Your task to perform on an android device: Open Google Chrome Image 0: 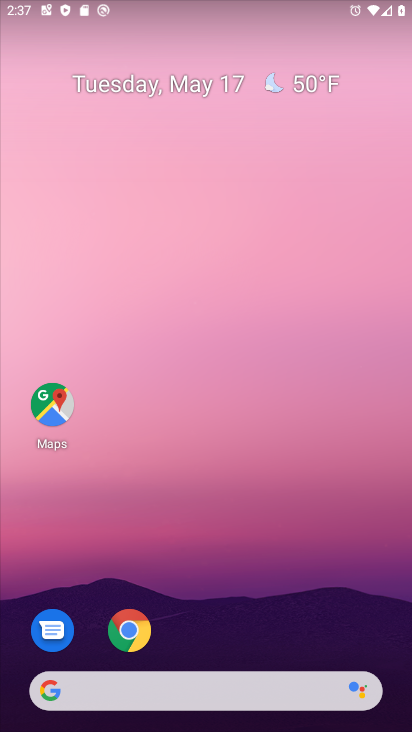
Step 0: click (130, 636)
Your task to perform on an android device: Open Google Chrome Image 1: 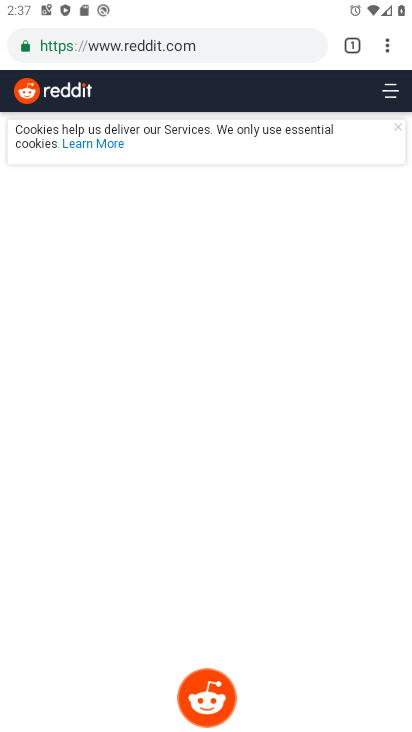
Step 1: click (355, 43)
Your task to perform on an android device: Open Google Chrome Image 2: 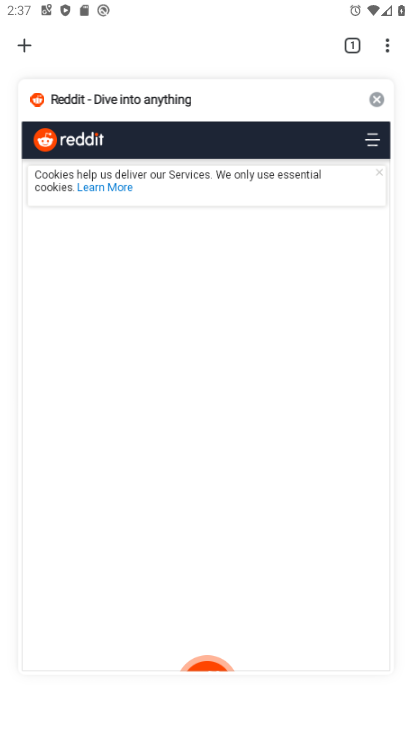
Step 2: click (22, 44)
Your task to perform on an android device: Open Google Chrome Image 3: 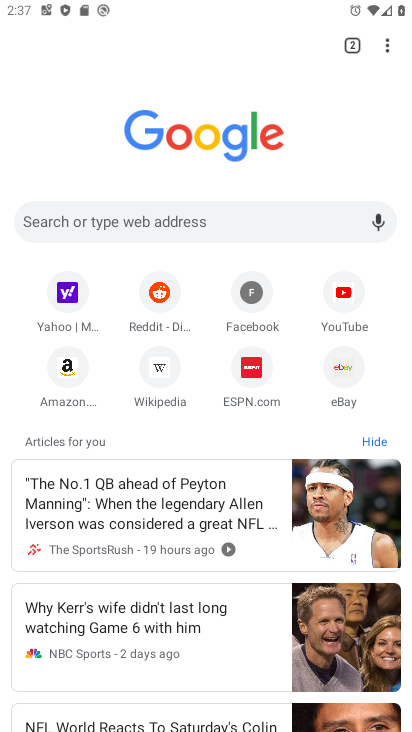
Step 3: task complete